Your task to perform on an android device: open app "Google Chrome" Image 0: 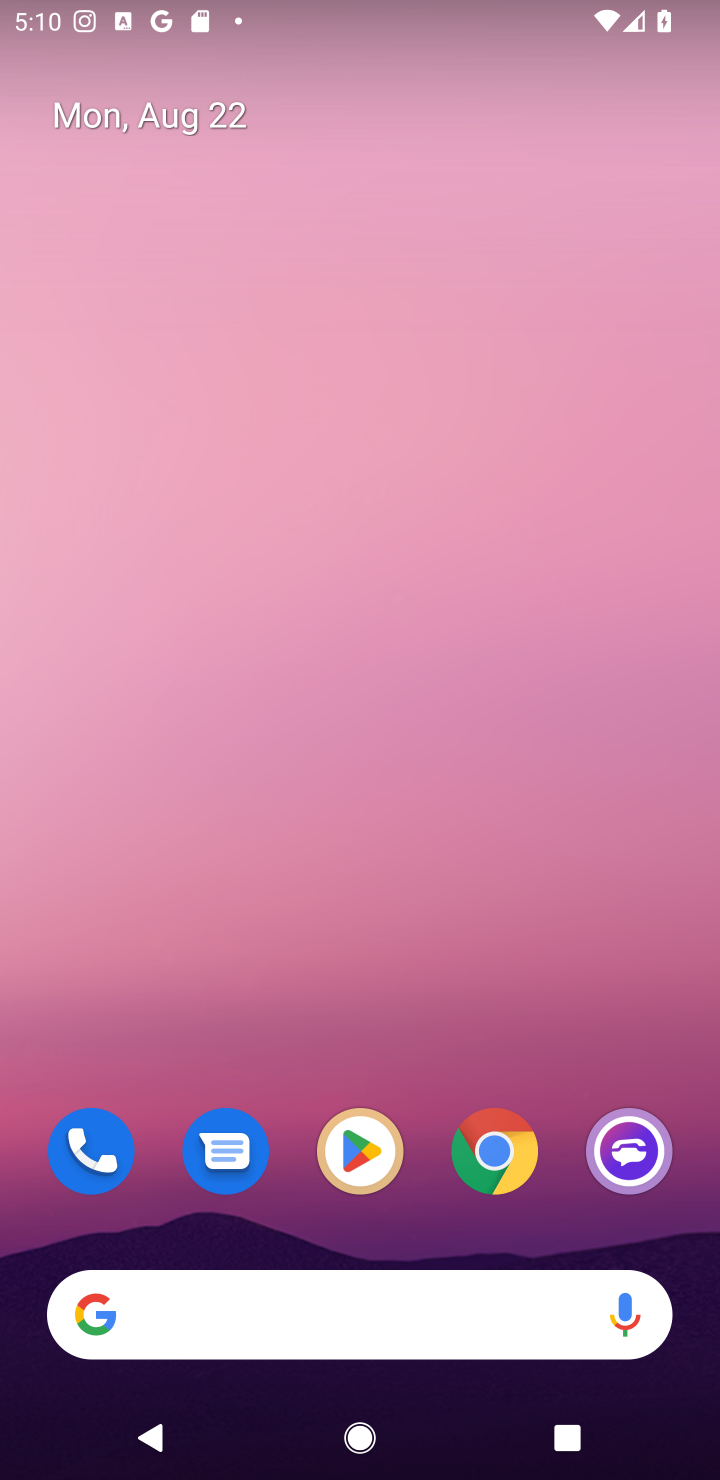
Step 0: click (324, 1173)
Your task to perform on an android device: open app "Google Chrome" Image 1: 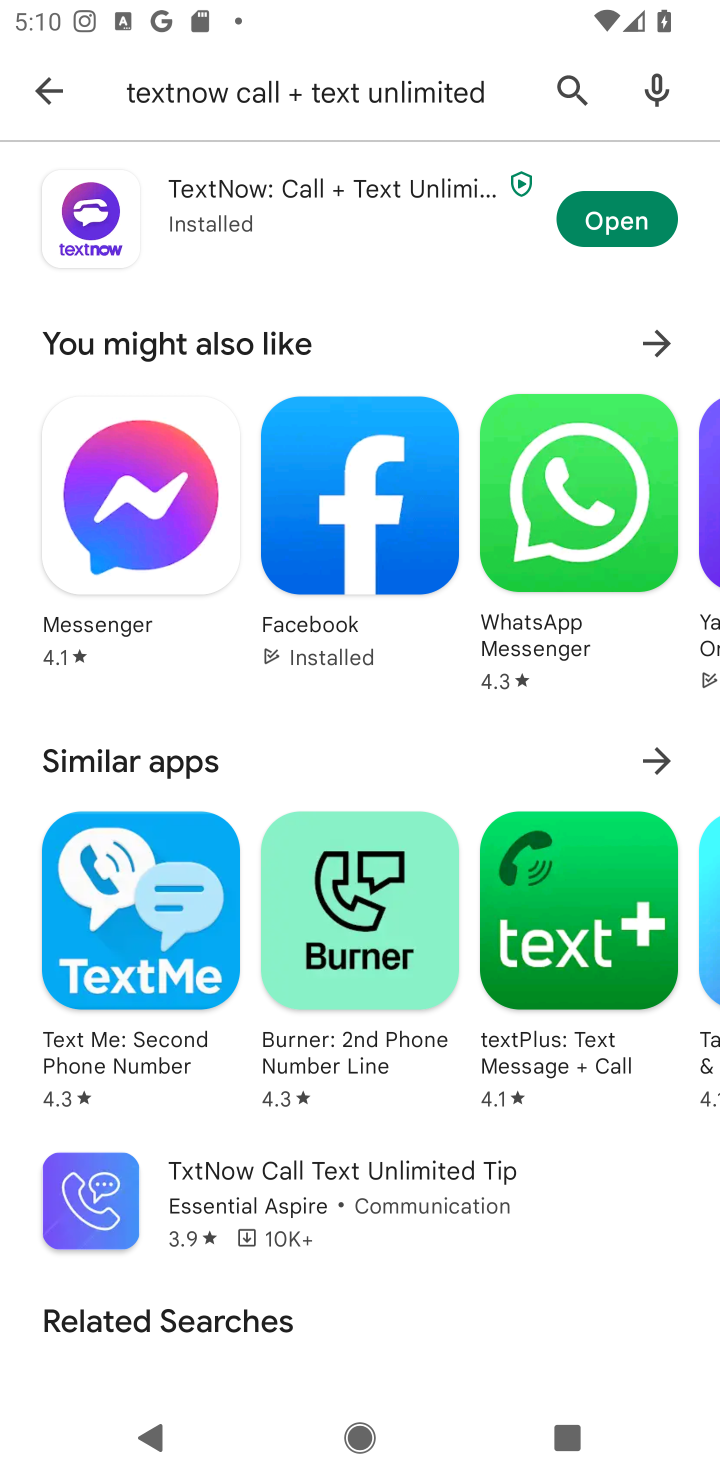
Step 1: click (568, 83)
Your task to perform on an android device: open app "Google Chrome" Image 2: 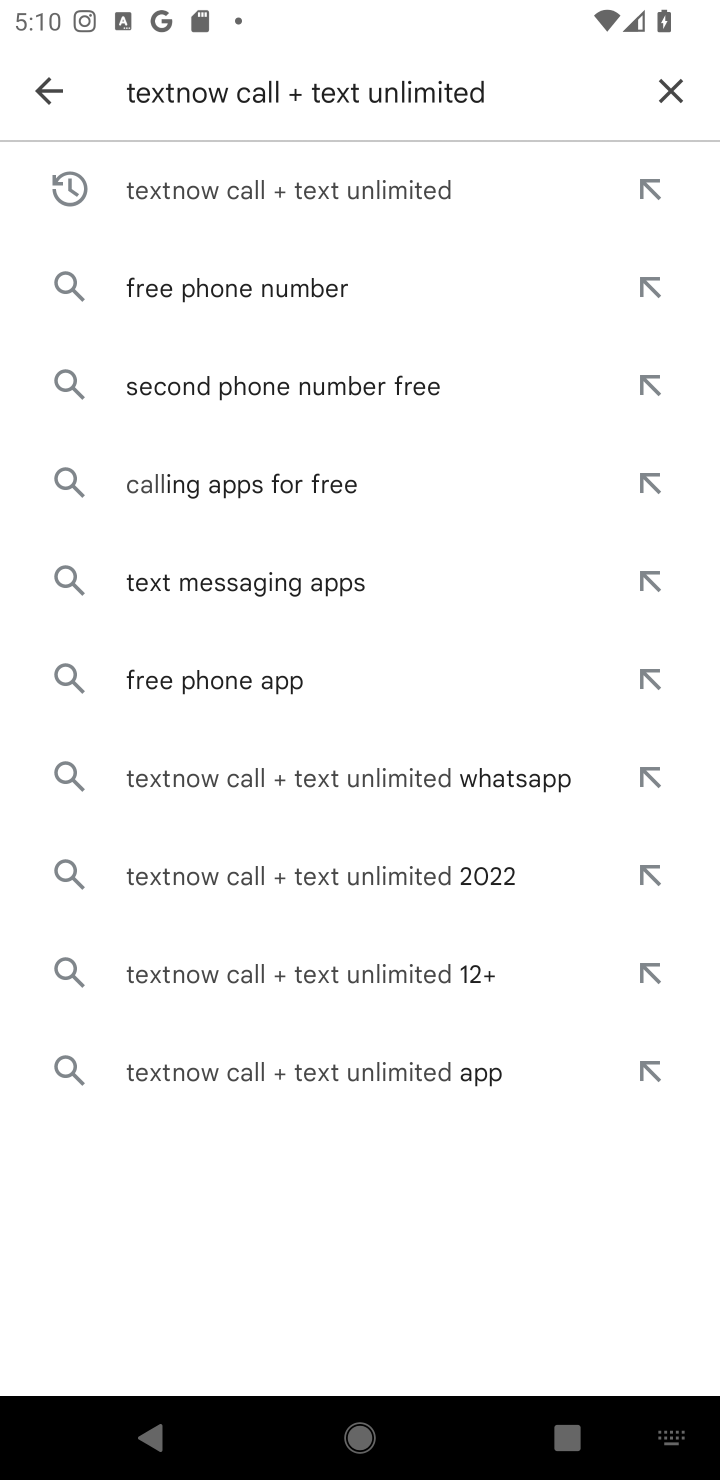
Step 2: click (670, 84)
Your task to perform on an android device: open app "Google Chrome" Image 3: 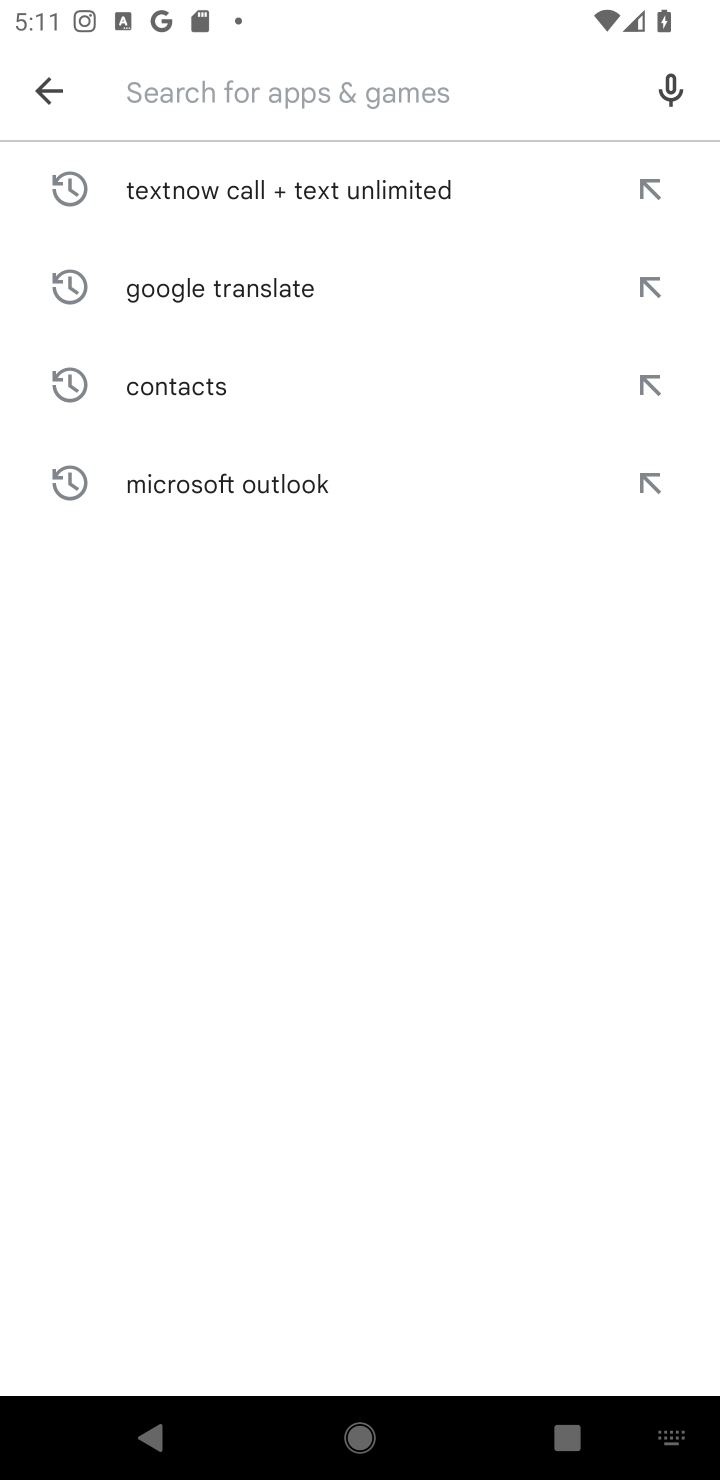
Step 3: type "Google Chrome"
Your task to perform on an android device: open app "Google Chrome" Image 4: 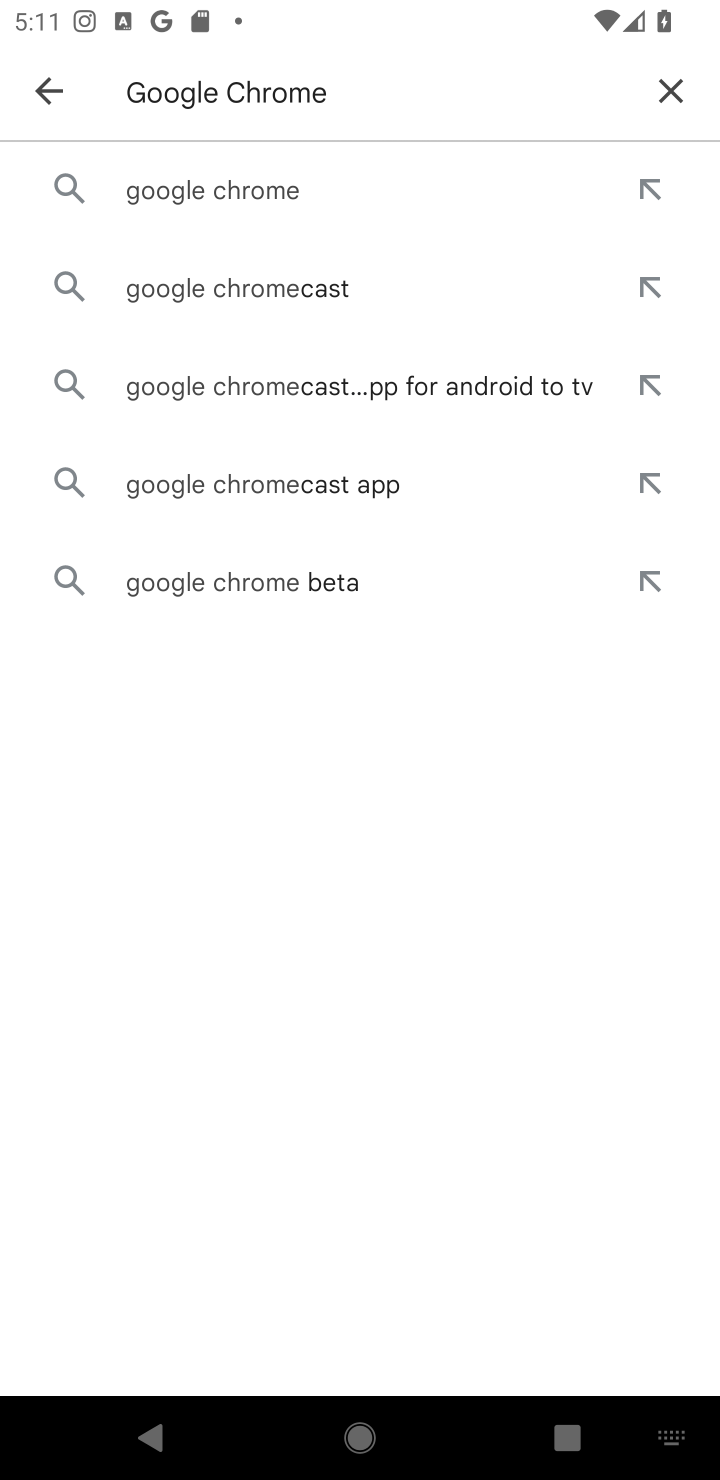
Step 4: click (274, 186)
Your task to perform on an android device: open app "Google Chrome" Image 5: 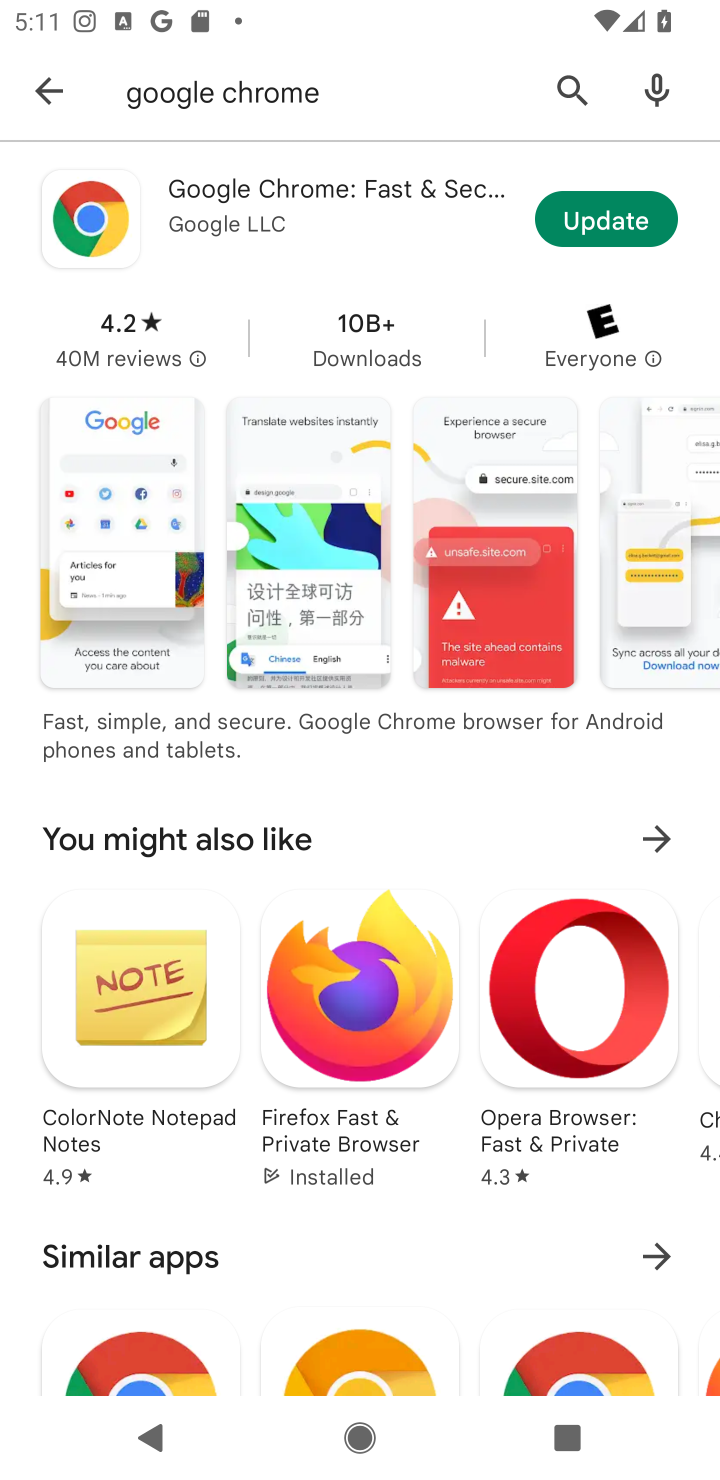
Step 5: click (218, 208)
Your task to perform on an android device: open app "Google Chrome" Image 6: 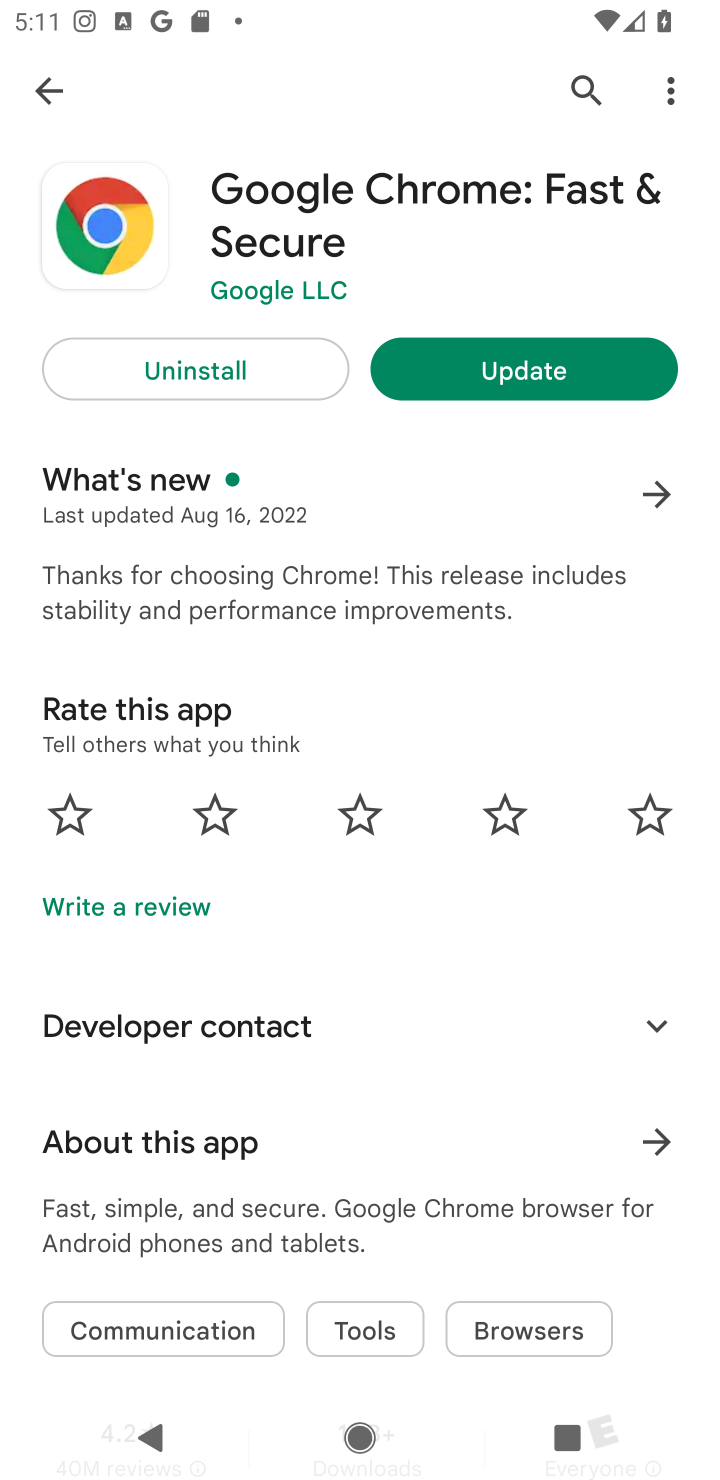
Step 6: task complete